Your task to perform on an android device: turn off data saver in the chrome app Image 0: 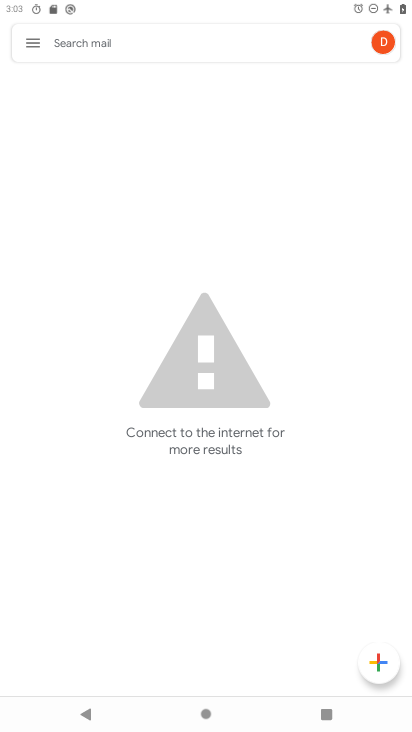
Step 0: press home button
Your task to perform on an android device: turn off data saver in the chrome app Image 1: 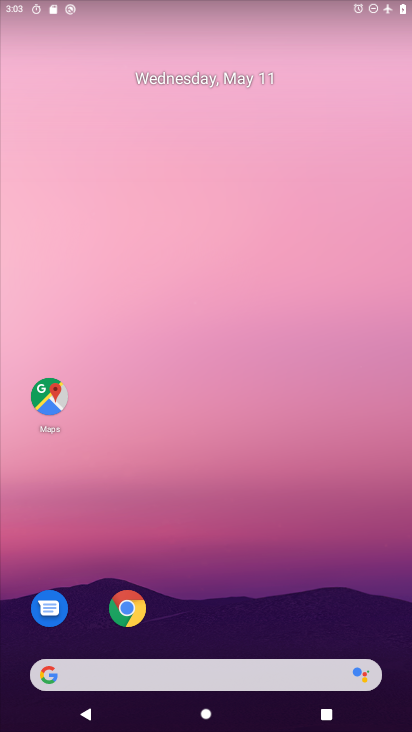
Step 1: drag from (227, 570) to (286, 189)
Your task to perform on an android device: turn off data saver in the chrome app Image 2: 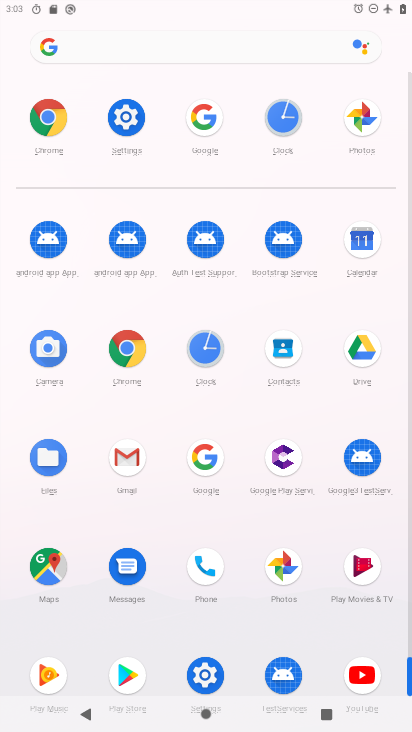
Step 2: click (56, 129)
Your task to perform on an android device: turn off data saver in the chrome app Image 3: 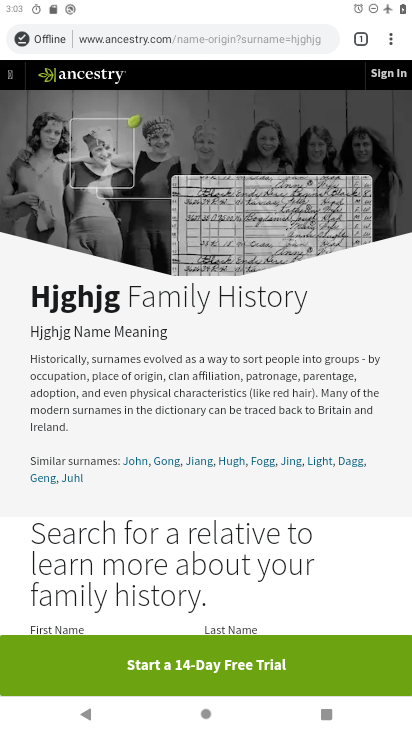
Step 3: drag from (216, 218) to (375, 0)
Your task to perform on an android device: turn off data saver in the chrome app Image 4: 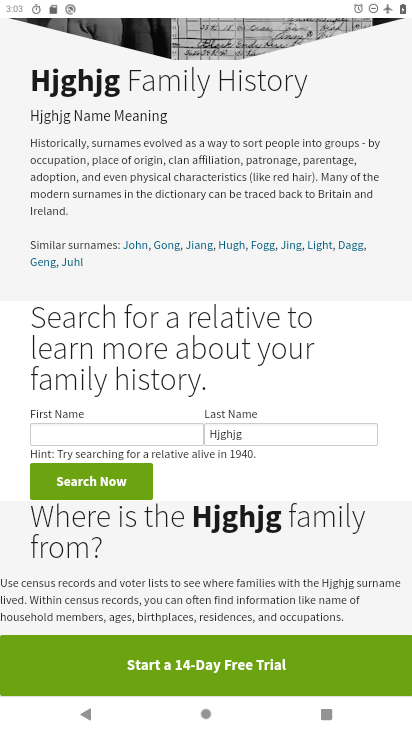
Step 4: drag from (373, 51) to (264, 331)
Your task to perform on an android device: turn off data saver in the chrome app Image 5: 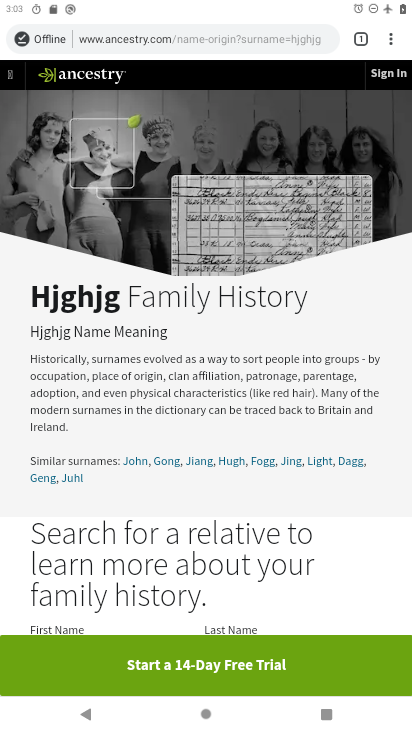
Step 5: click (394, 36)
Your task to perform on an android device: turn off data saver in the chrome app Image 6: 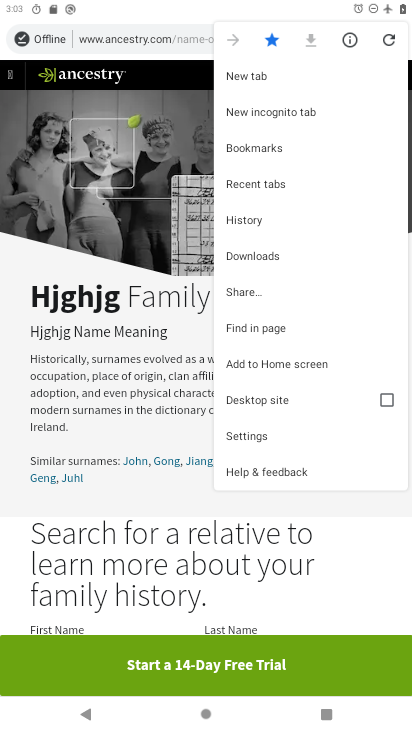
Step 6: click (252, 439)
Your task to perform on an android device: turn off data saver in the chrome app Image 7: 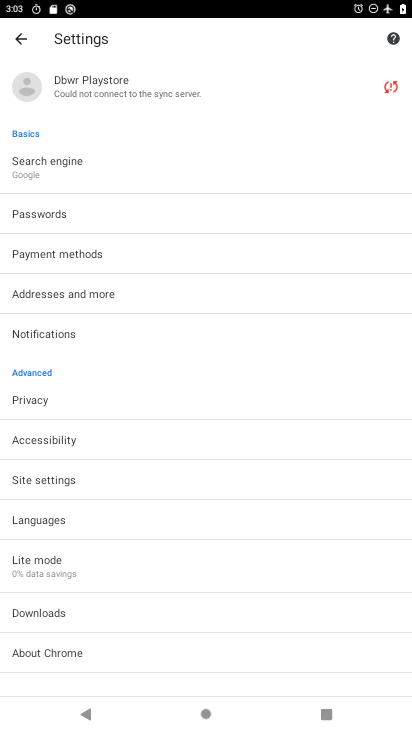
Step 7: drag from (264, 447) to (118, 538)
Your task to perform on an android device: turn off data saver in the chrome app Image 8: 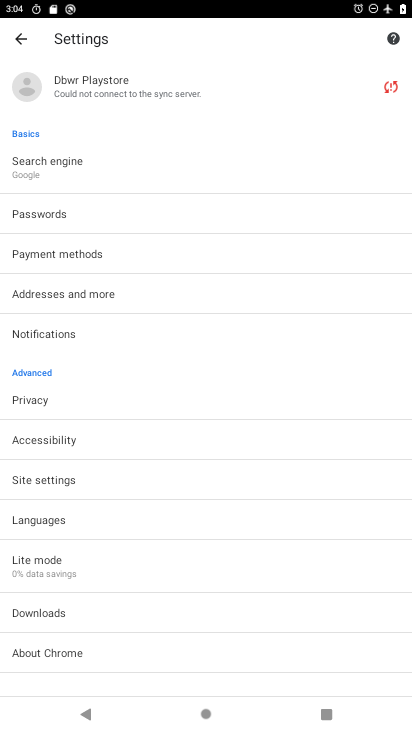
Step 8: click (69, 563)
Your task to perform on an android device: turn off data saver in the chrome app Image 9: 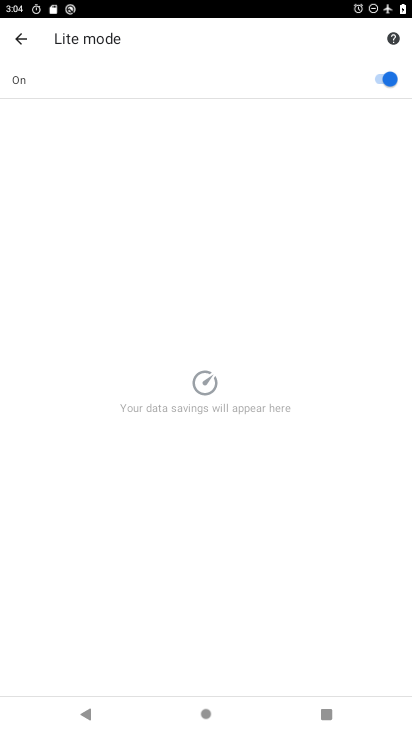
Step 9: click (387, 83)
Your task to perform on an android device: turn off data saver in the chrome app Image 10: 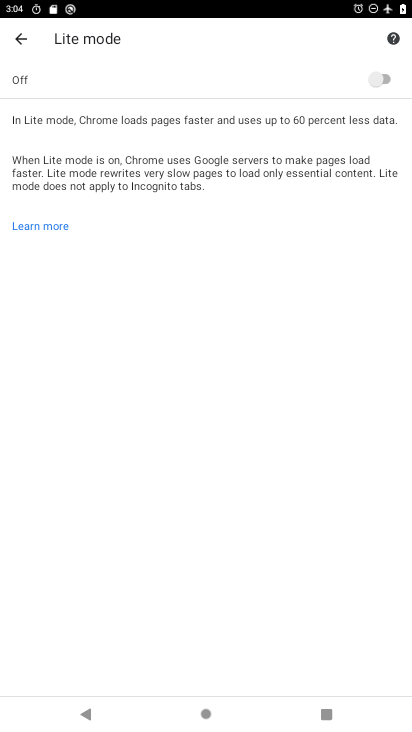
Step 10: task complete